Your task to perform on an android device: Go to battery settings Image 0: 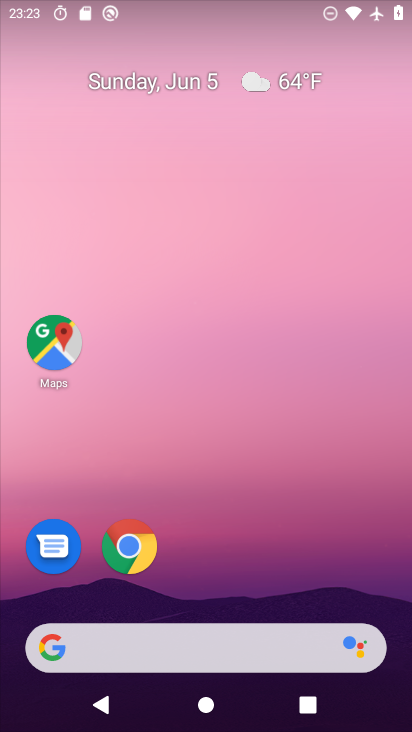
Step 0: drag from (222, 569) to (281, 153)
Your task to perform on an android device: Go to battery settings Image 1: 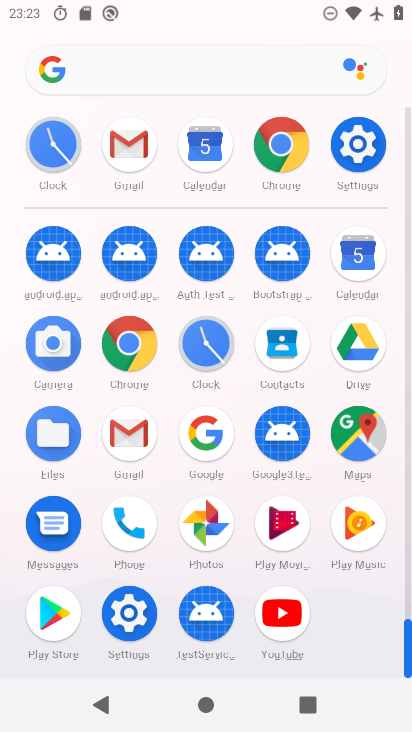
Step 1: click (360, 135)
Your task to perform on an android device: Go to battery settings Image 2: 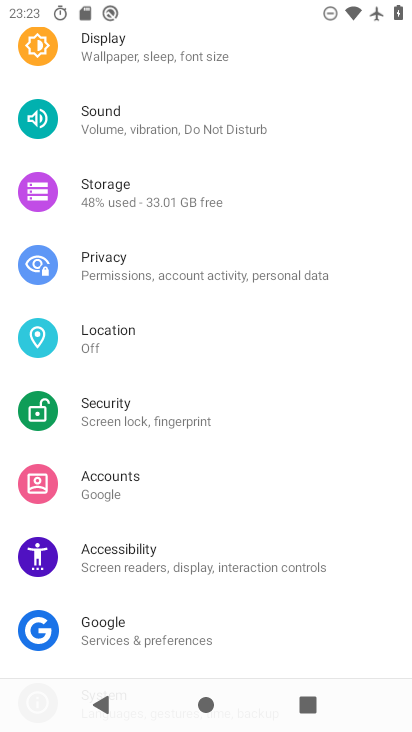
Step 2: drag from (217, 169) to (247, 700)
Your task to perform on an android device: Go to battery settings Image 3: 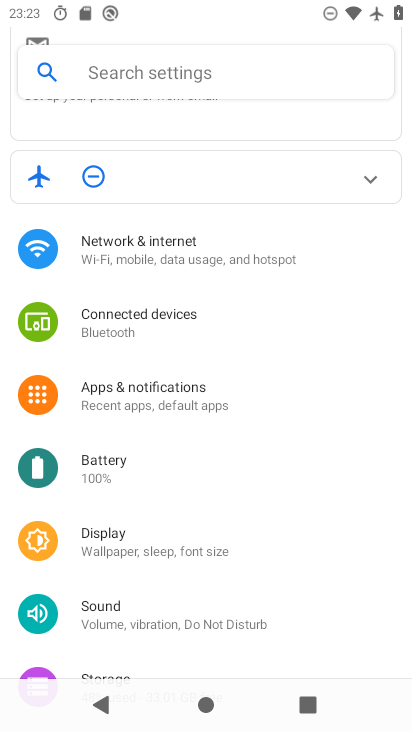
Step 3: click (155, 466)
Your task to perform on an android device: Go to battery settings Image 4: 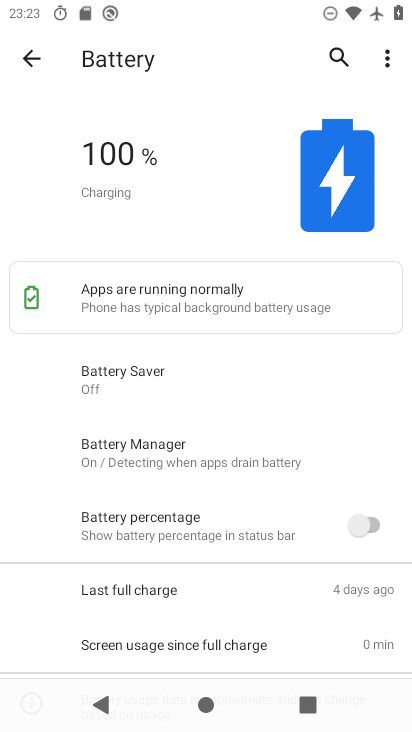
Step 4: task complete